Your task to perform on an android device: turn on data saver in the chrome app Image 0: 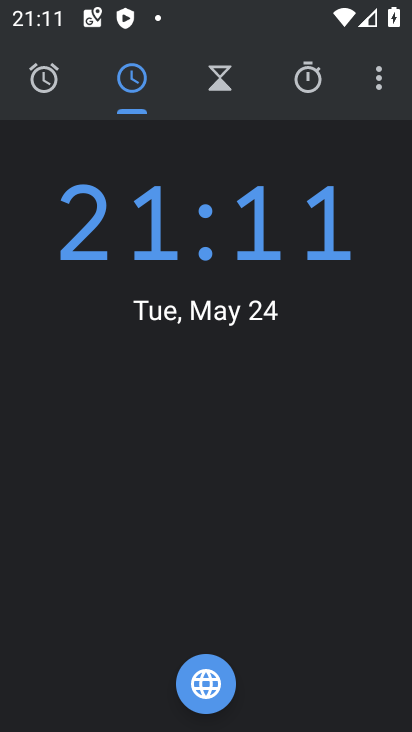
Step 0: press home button
Your task to perform on an android device: turn on data saver in the chrome app Image 1: 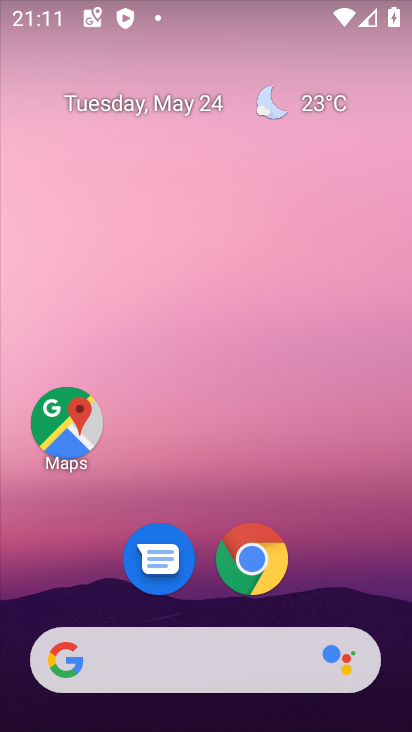
Step 1: click (249, 561)
Your task to perform on an android device: turn on data saver in the chrome app Image 2: 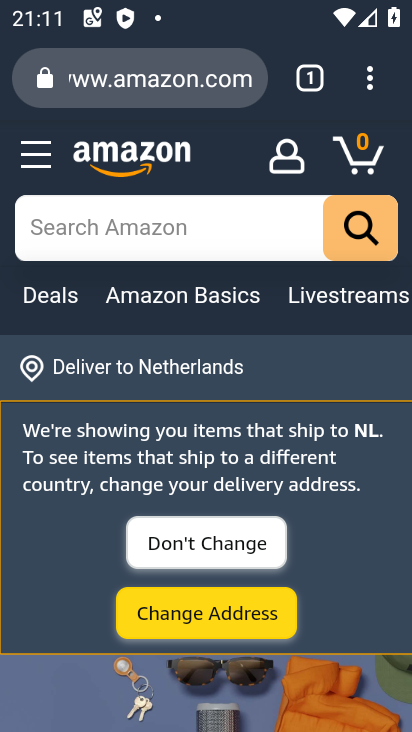
Step 2: click (369, 86)
Your task to perform on an android device: turn on data saver in the chrome app Image 3: 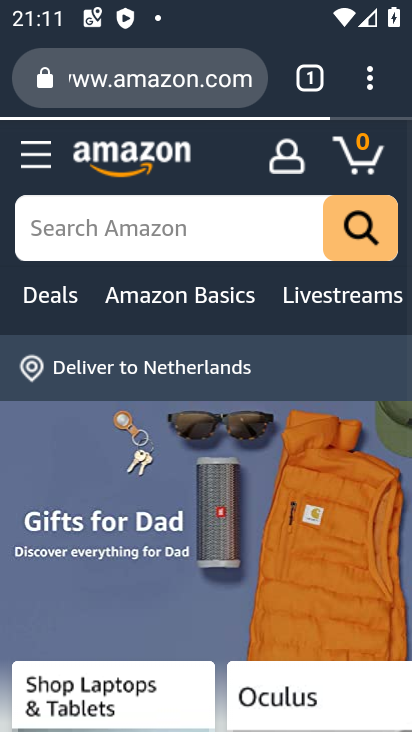
Step 3: drag from (378, 79) to (241, 624)
Your task to perform on an android device: turn on data saver in the chrome app Image 4: 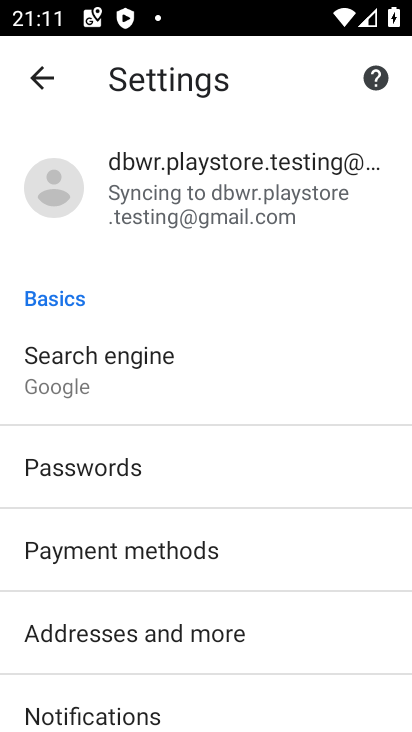
Step 4: drag from (280, 524) to (302, 10)
Your task to perform on an android device: turn on data saver in the chrome app Image 5: 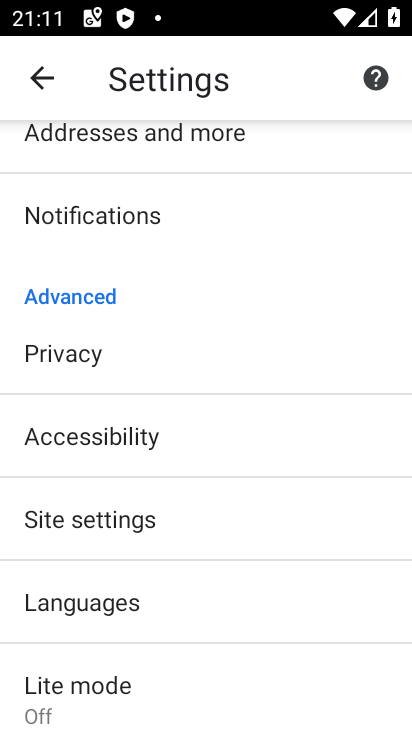
Step 5: drag from (213, 565) to (260, 259)
Your task to perform on an android device: turn on data saver in the chrome app Image 6: 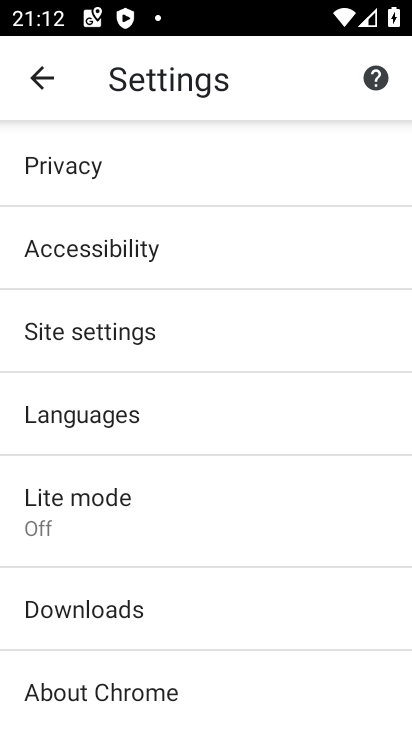
Step 6: click (93, 509)
Your task to perform on an android device: turn on data saver in the chrome app Image 7: 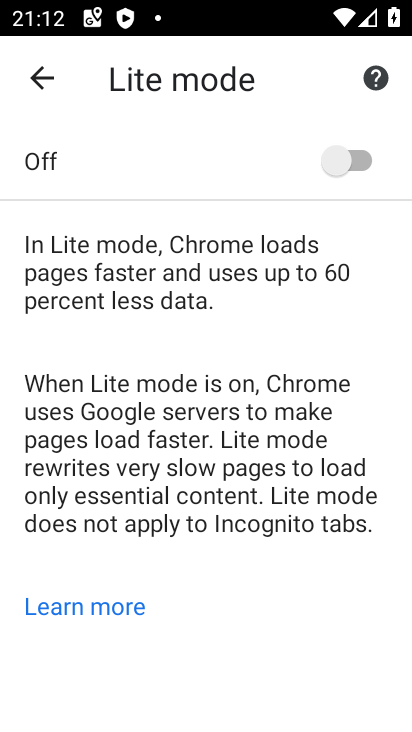
Step 7: click (328, 149)
Your task to perform on an android device: turn on data saver in the chrome app Image 8: 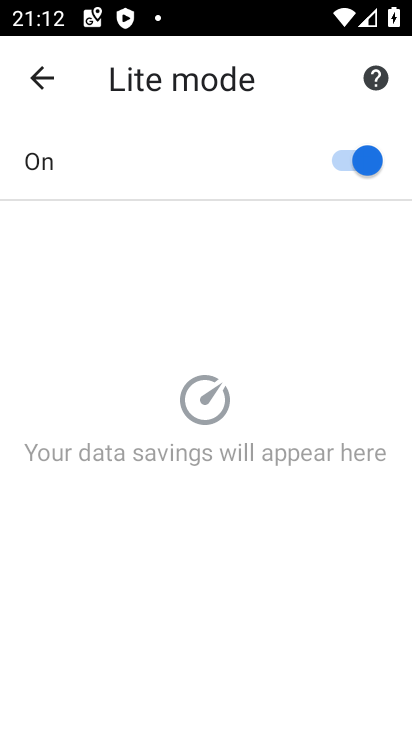
Step 8: task complete